Your task to perform on an android device: set the stopwatch Image 0: 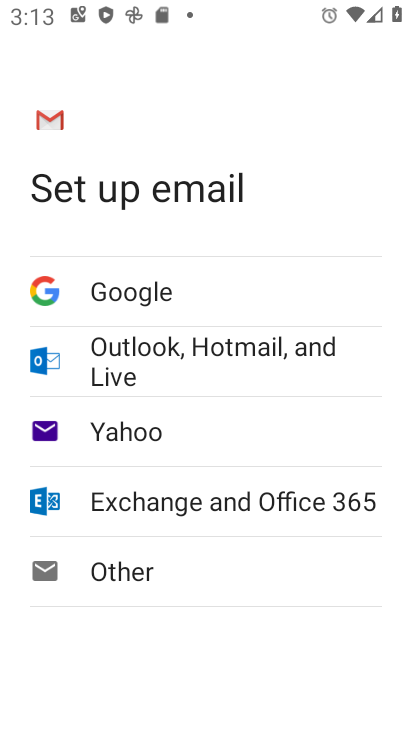
Step 0: press home button
Your task to perform on an android device: set the stopwatch Image 1: 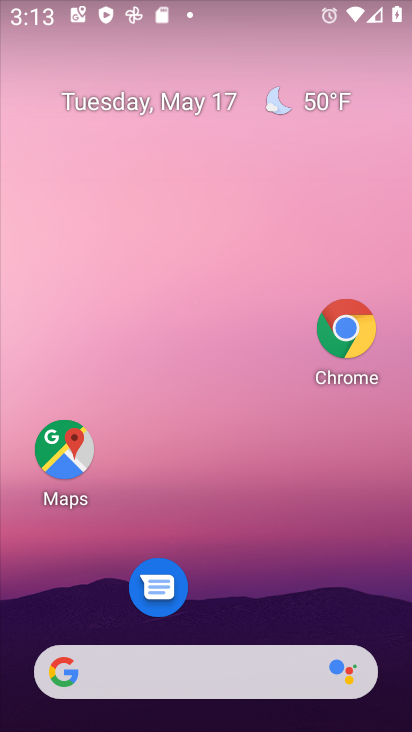
Step 1: drag from (253, 620) to (258, 134)
Your task to perform on an android device: set the stopwatch Image 2: 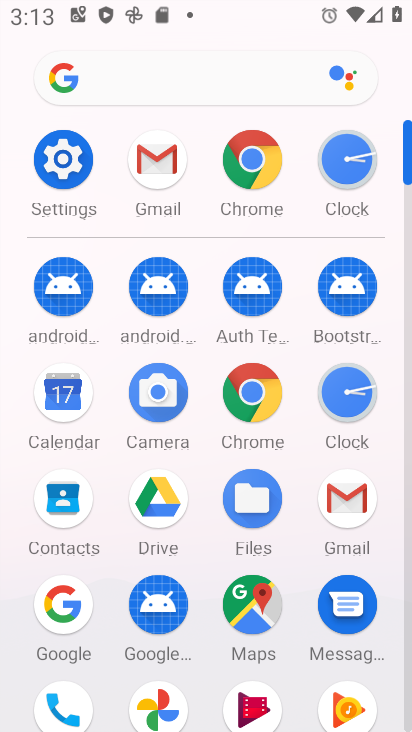
Step 2: click (336, 419)
Your task to perform on an android device: set the stopwatch Image 3: 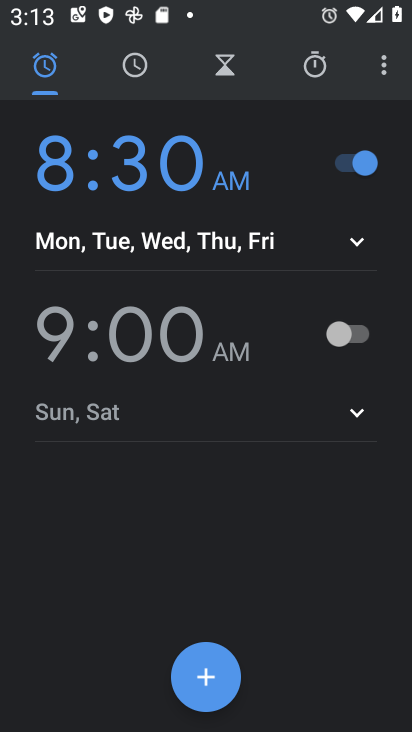
Step 3: click (315, 70)
Your task to perform on an android device: set the stopwatch Image 4: 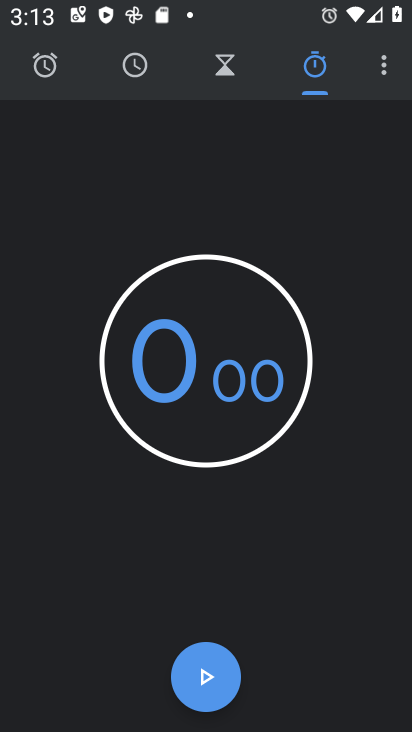
Step 4: task complete